Your task to perform on an android device: Open Reddit.com Image 0: 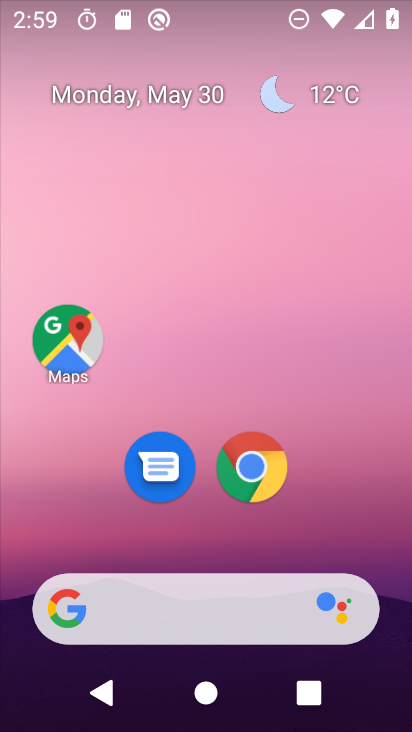
Step 0: click (240, 472)
Your task to perform on an android device: Open Reddit.com Image 1: 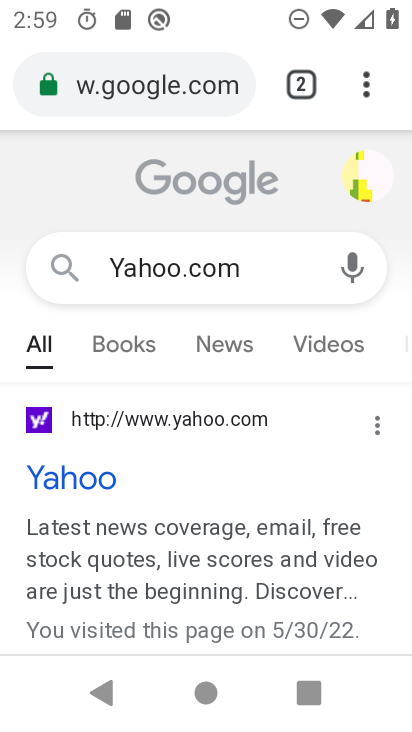
Step 1: click (237, 78)
Your task to perform on an android device: Open Reddit.com Image 2: 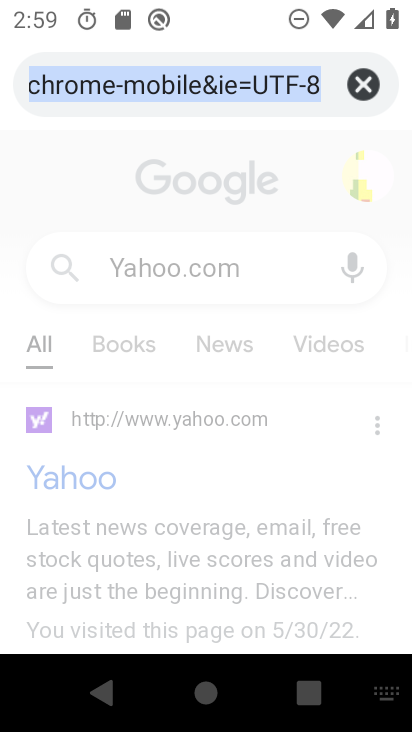
Step 2: click (355, 90)
Your task to perform on an android device: Open Reddit.com Image 3: 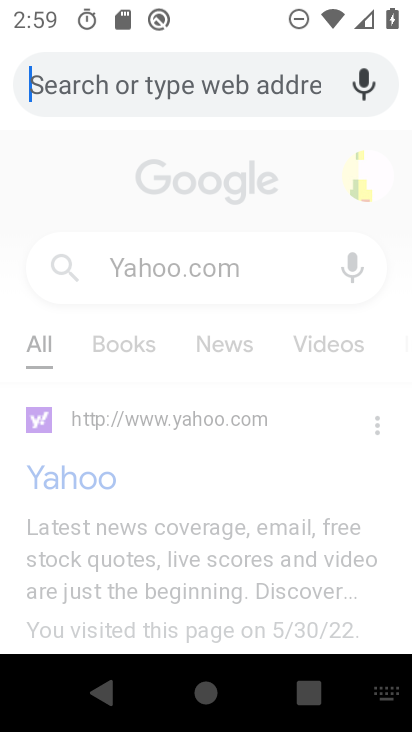
Step 3: type "Reddit.com"
Your task to perform on an android device: Open Reddit.com Image 4: 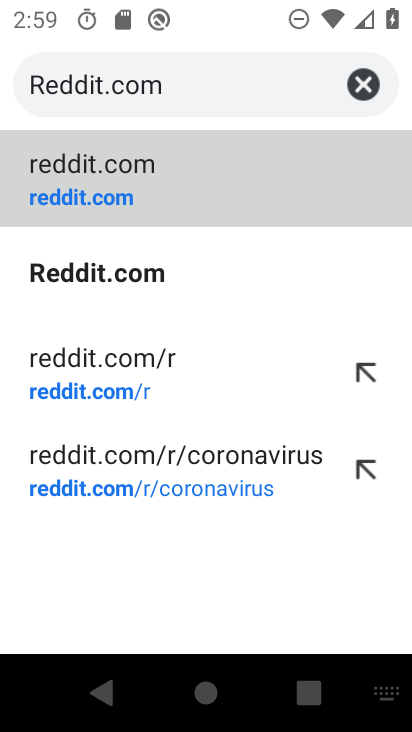
Step 4: click (95, 273)
Your task to perform on an android device: Open Reddit.com Image 5: 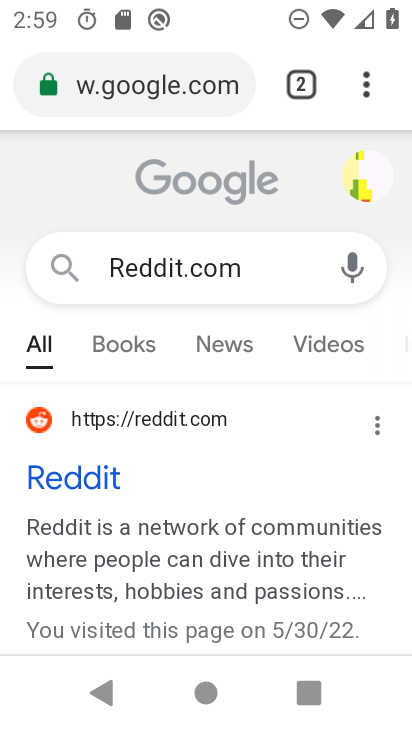
Step 5: task complete